Your task to perform on an android device: Open Android settings Image 0: 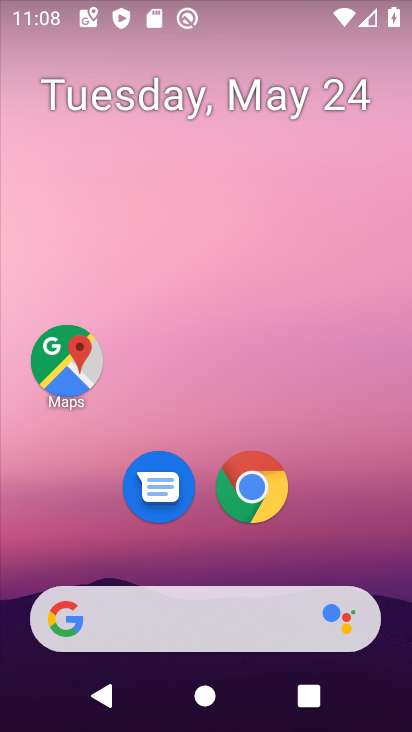
Step 0: drag from (212, 569) to (208, 102)
Your task to perform on an android device: Open Android settings Image 1: 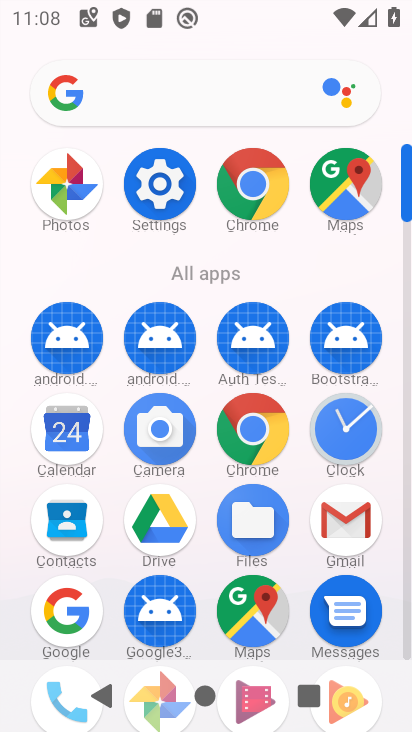
Step 1: click (161, 181)
Your task to perform on an android device: Open Android settings Image 2: 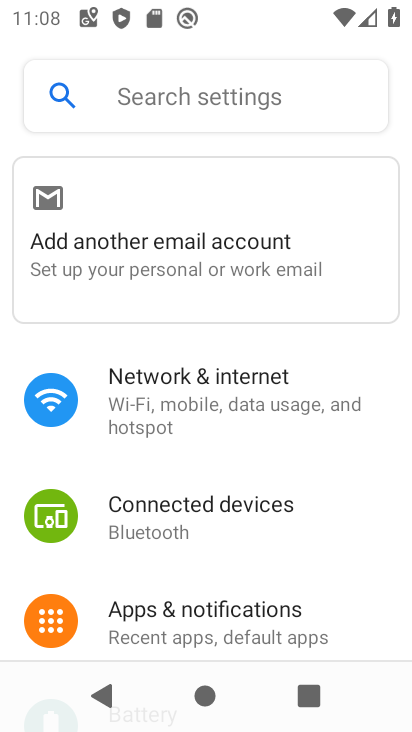
Step 2: drag from (214, 599) to (275, 70)
Your task to perform on an android device: Open Android settings Image 3: 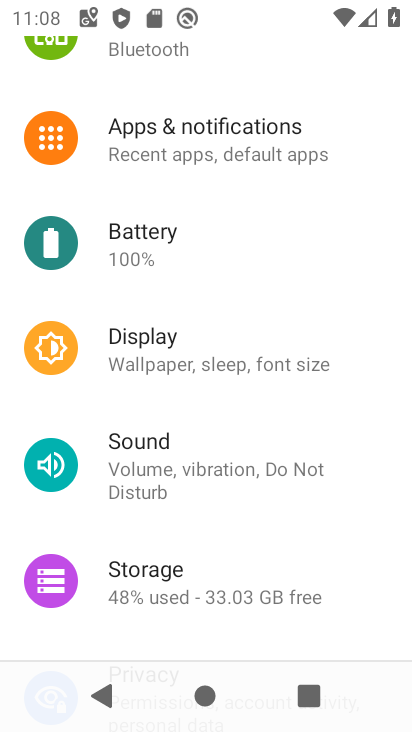
Step 3: drag from (205, 573) to (299, 26)
Your task to perform on an android device: Open Android settings Image 4: 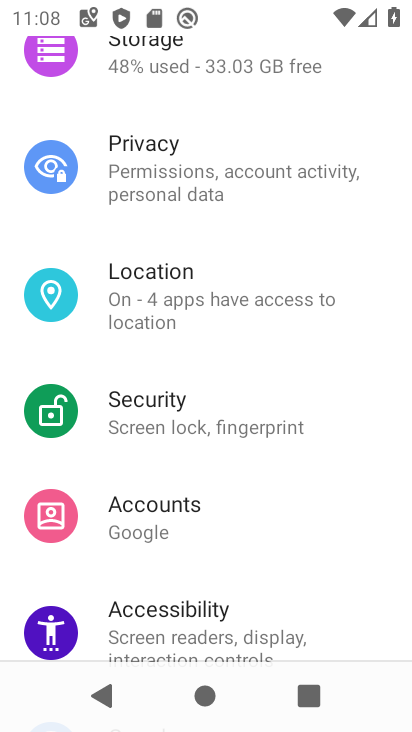
Step 4: drag from (181, 600) to (240, 45)
Your task to perform on an android device: Open Android settings Image 5: 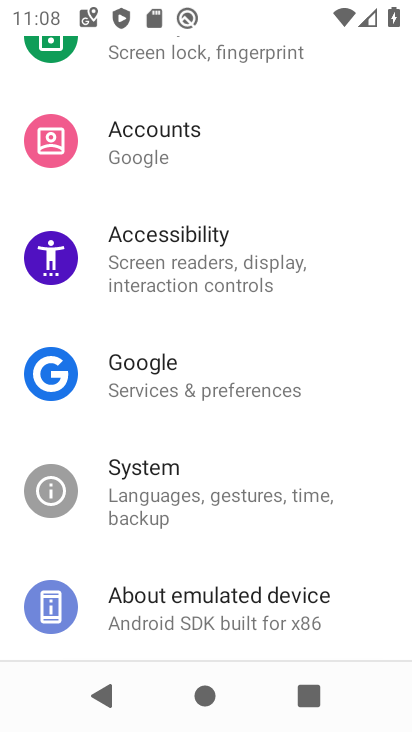
Step 5: drag from (185, 567) to (238, 47)
Your task to perform on an android device: Open Android settings Image 6: 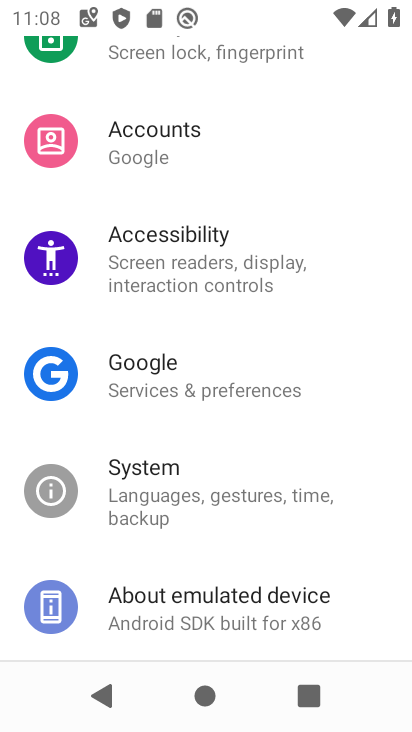
Step 6: click (249, 606)
Your task to perform on an android device: Open Android settings Image 7: 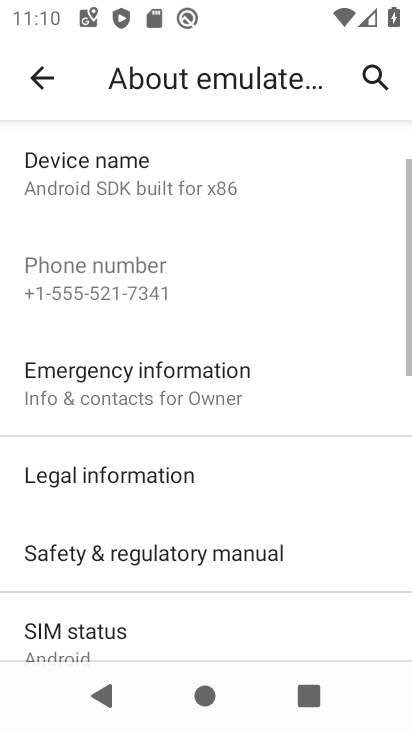
Step 7: drag from (199, 633) to (283, 106)
Your task to perform on an android device: Open Android settings Image 8: 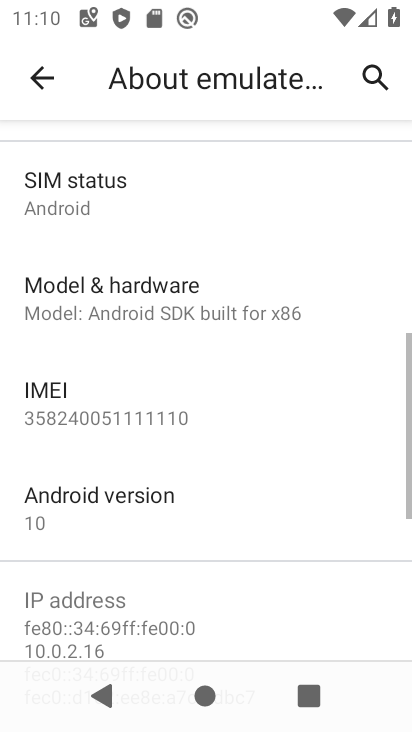
Step 8: click (64, 509)
Your task to perform on an android device: Open Android settings Image 9: 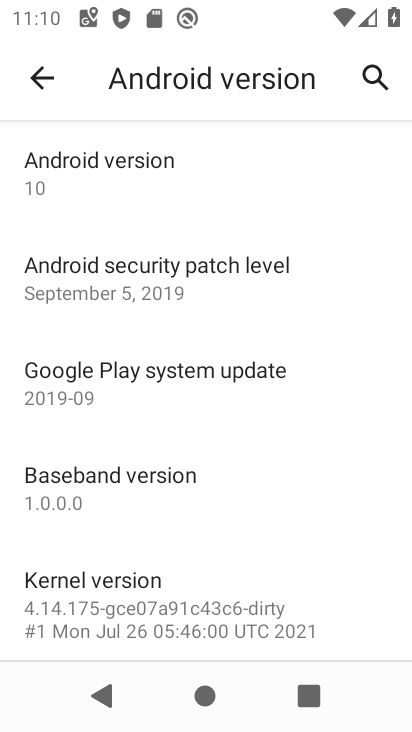
Step 9: task complete